Your task to perform on an android device: Open Google Chrome Image 0: 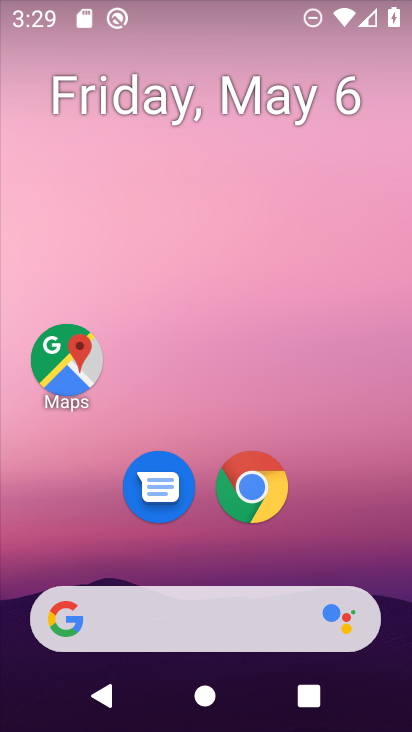
Step 0: click (253, 495)
Your task to perform on an android device: Open Google Chrome Image 1: 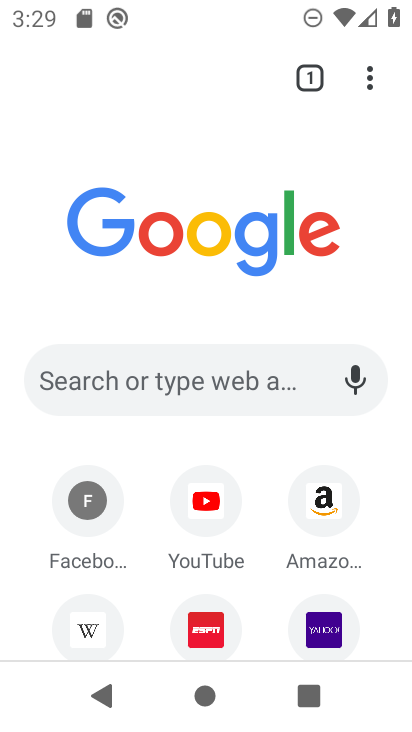
Step 1: click (375, 79)
Your task to perform on an android device: Open Google Chrome Image 2: 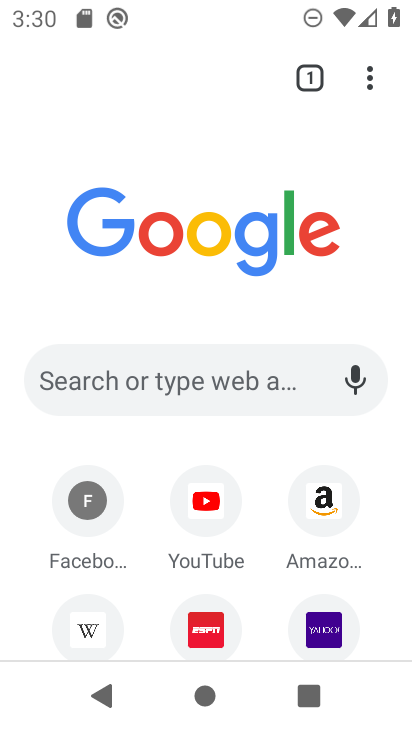
Step 2: task complete